Your task to perform on an android device: Open location settings Image 0: 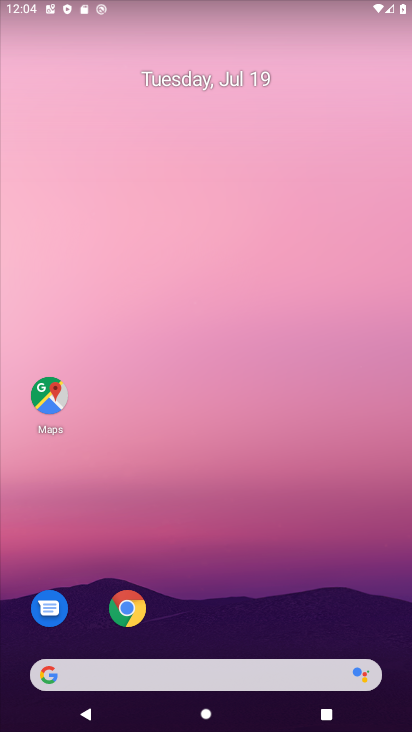
Step 0: drag from (207, 633) to (237, 181)
Your task to perform on an android device: Open location settings Image 1: 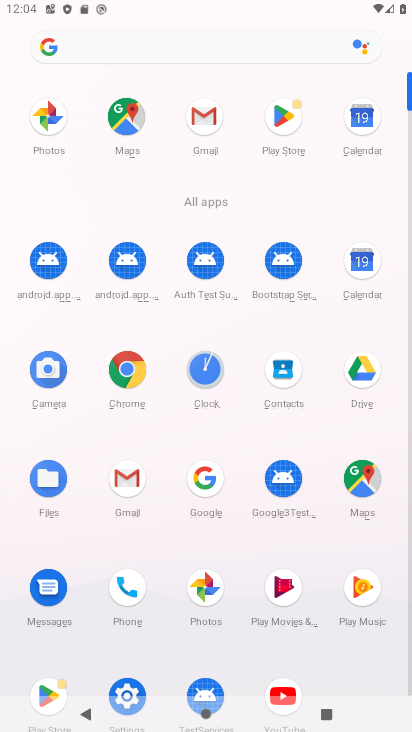
Step 1: click (125, 679)
Your task to perform on an android device: Open location settings Image 2: 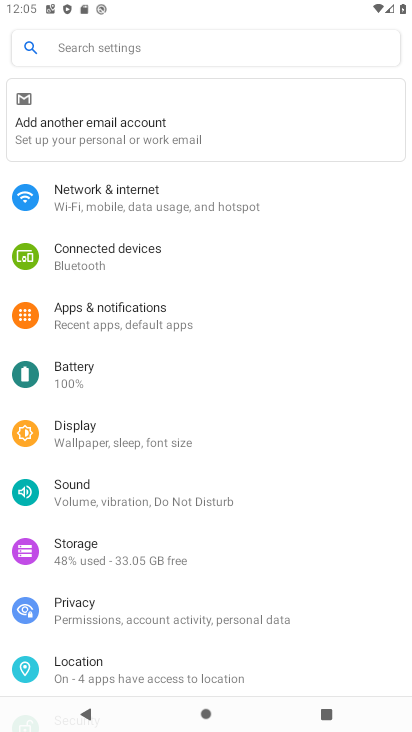
Step 2: click (107, 663)
Your task to perform on an android device: Open location settings Image 3: 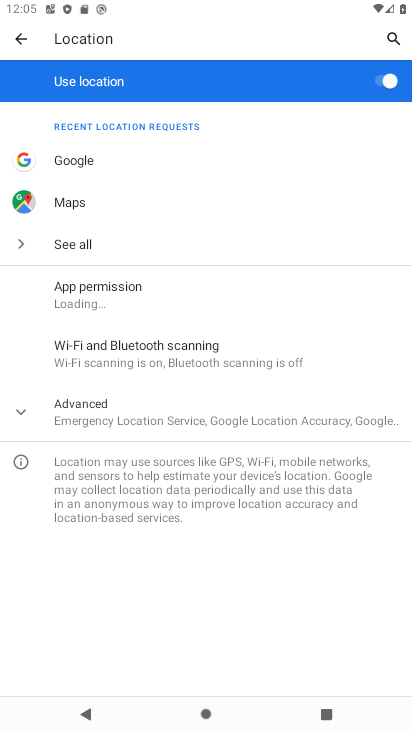
Step 3: click (123, 425)
Your task to perform on an android device: Open location settings Image 4: 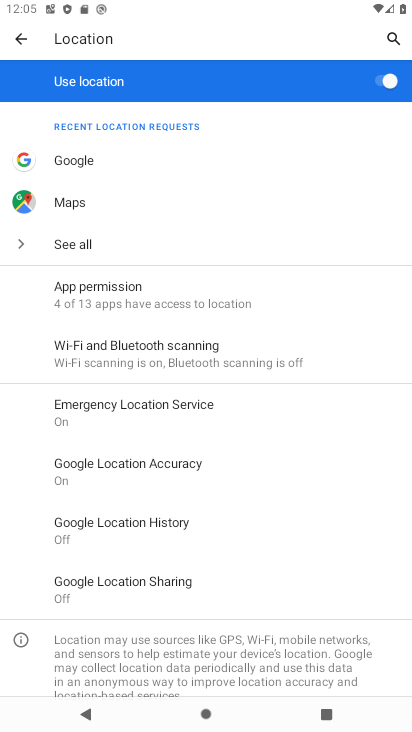
Step 4: task complete